Your task to perform on an android device: Search for alienware area 51 on newegg, select the first entry, and add it to the cart. Image 0: 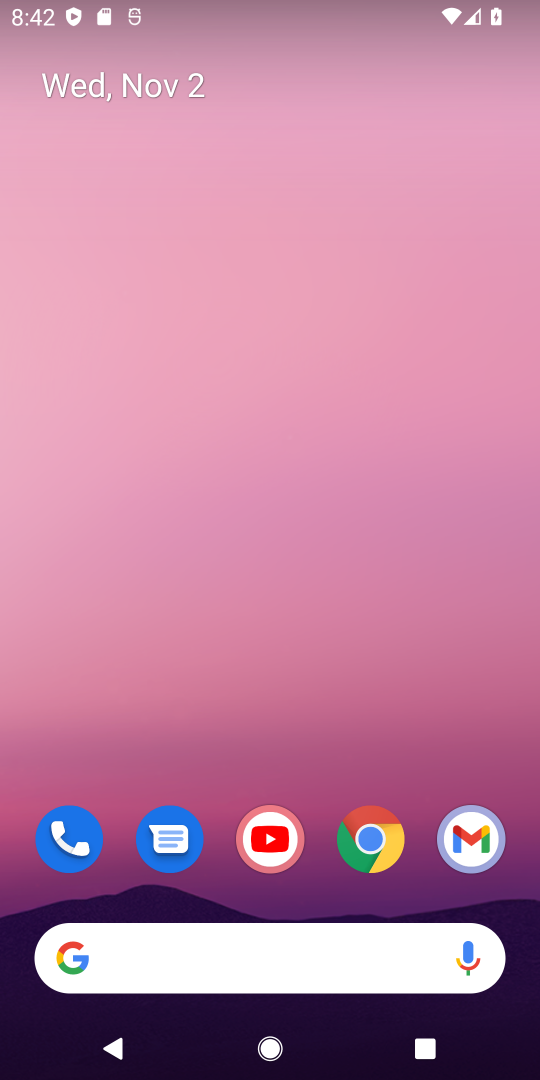
Step 0: click (370, 842)
Your task to perform on an android device: Search for alienware area 51 on newegg, select the first entry, and add it to the cart. Image 1: 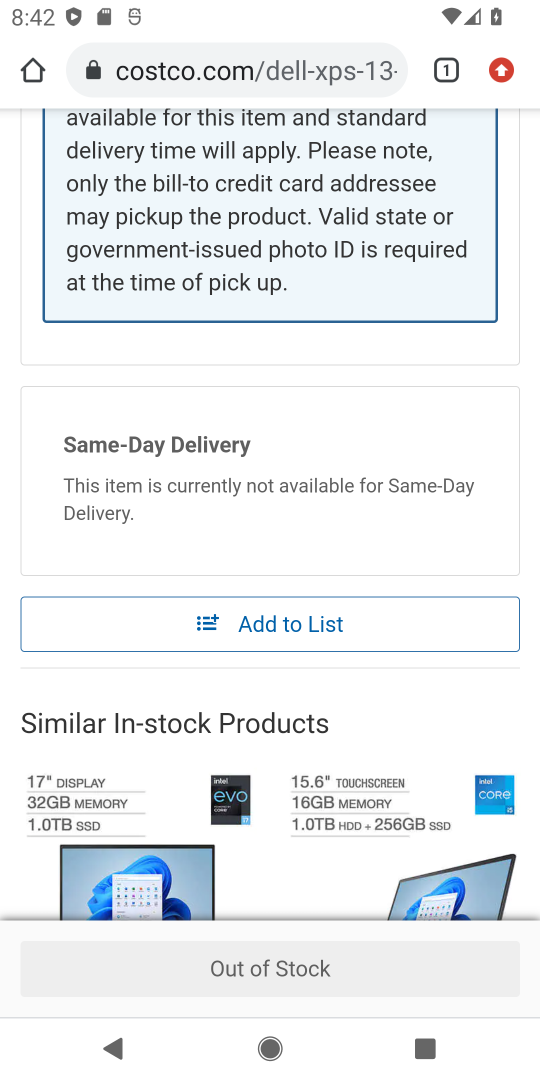
Step 1: click (217, 70)
Your task to perform on an android device: Search for alienware area 51 on newegg, select the first entry, and add it to the cart. Image 2: 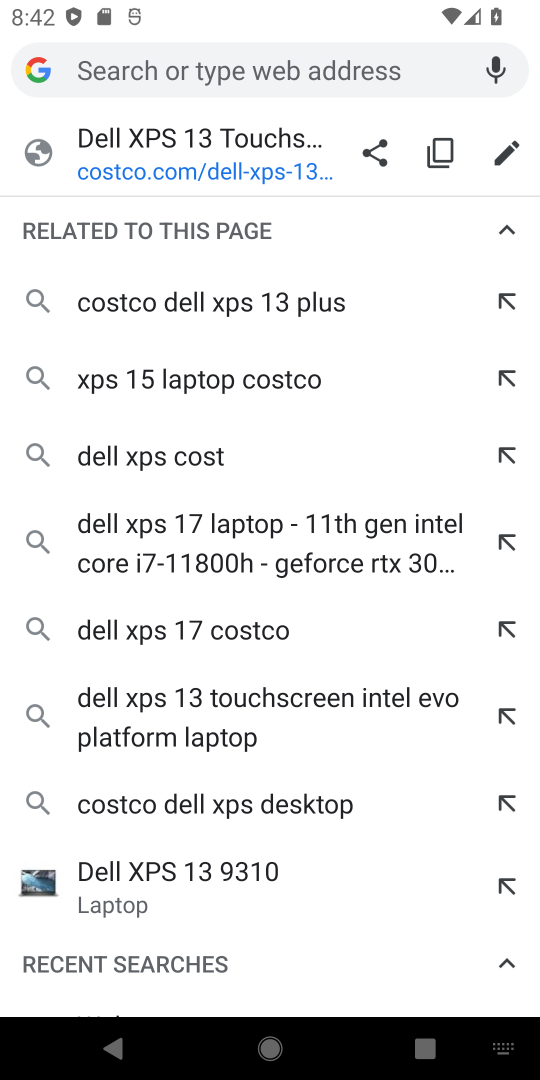
Step 2: type "newegg"
Your task to perform on an android device: Search for alienware area 51 on newegg, select the first entry, and add it to the cart. Image 3: 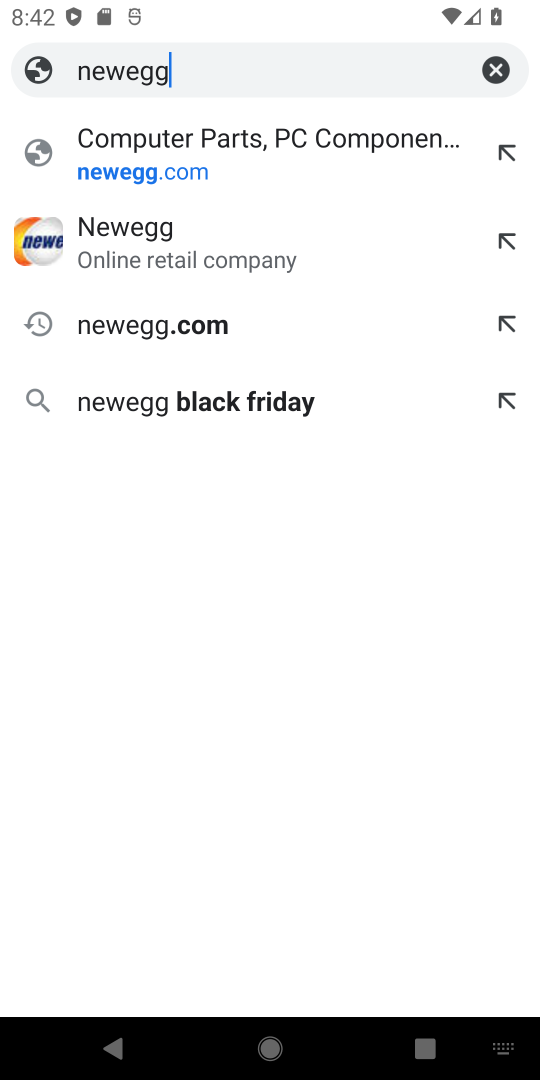
Step 3: click (139, 250)
Your task to perform on an android device: Search for alienware area 51 on newegg, select the first entry, and add it to the cart. Image 4: 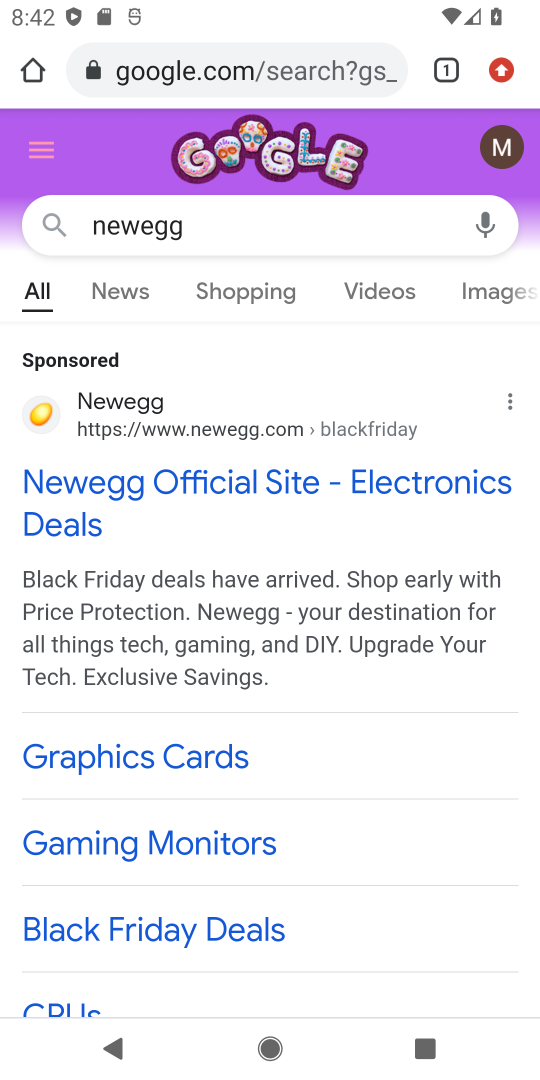
Step 4: drag from (247, 634) to (259, 271)
Your task to perform on an android device: Search for alienware area 51 on newegg, select the first entry, and add it to the cart. Image 5: 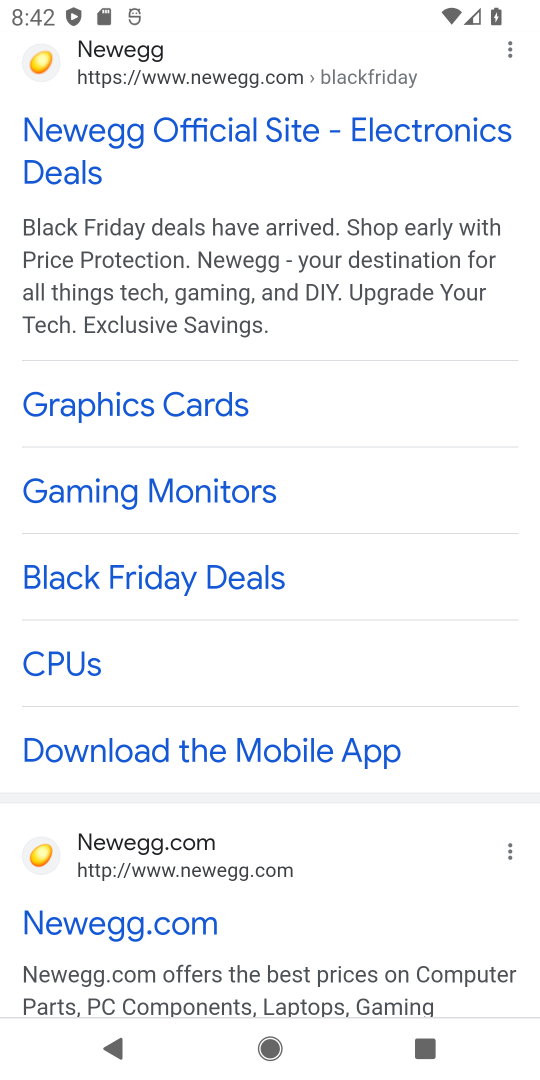
Step 5: drag from (251, 840) to (275, 528)
Your task to perform on an android device: Search for alienware area 51 on newegg, select the first entry, and add it to the cart. Image 6: 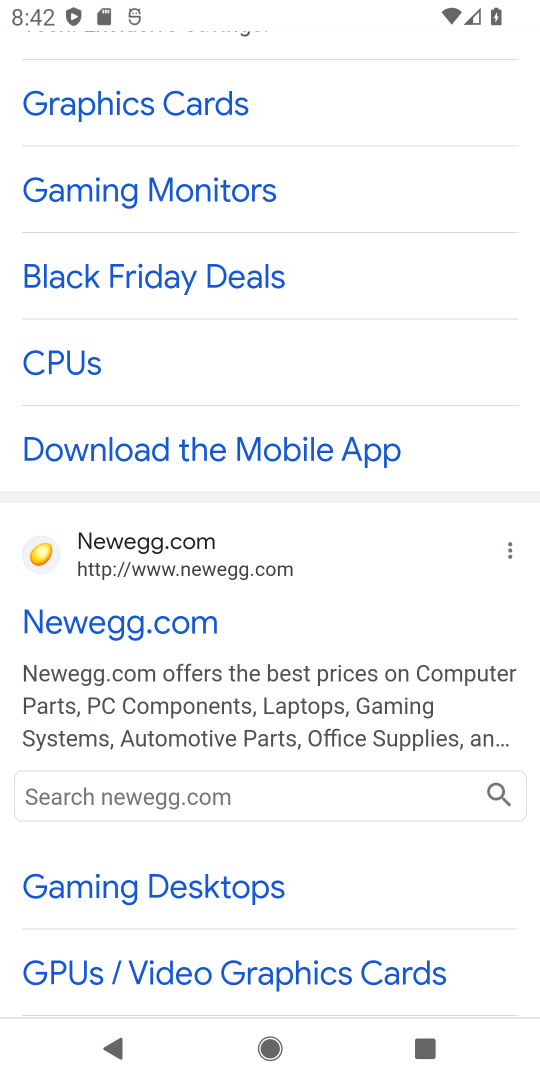
Step 6: click (227, 588)
Your task to perform on an android device: Search for alienware area 51 on newegg, select the first entry, and add it to the cart. Image 7: 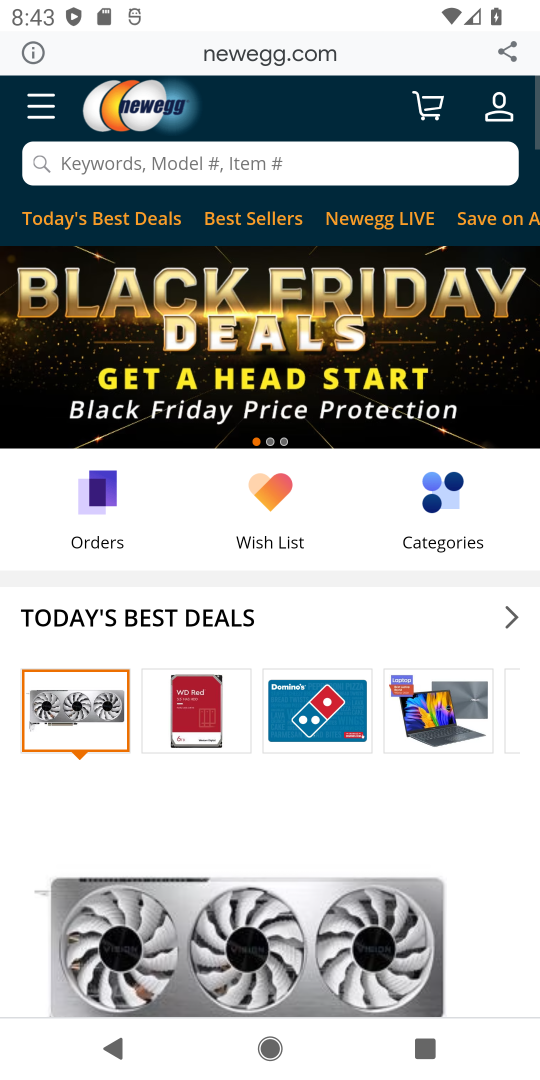
Step 7: click (274, 165)
Your task to perform on an android device: Search for alienware area 51 on newegg, select the first entry, and add it to the cart. Image 8: 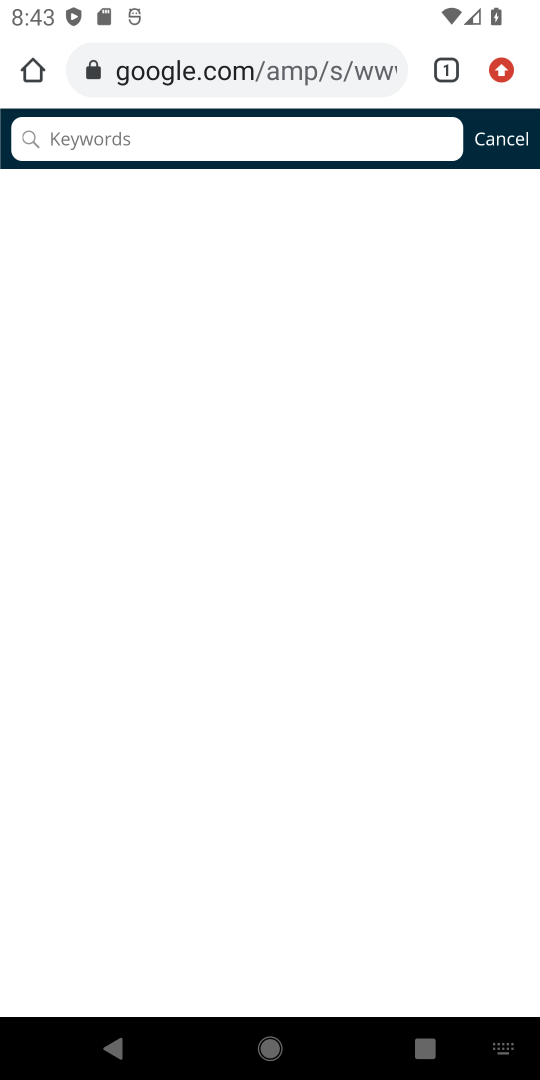
Step 8: type "alienware area 51"
Your task to perform on an android device: Search for alienware area 51 on newegg, select the first entry, and add it to the cart. Image 9: 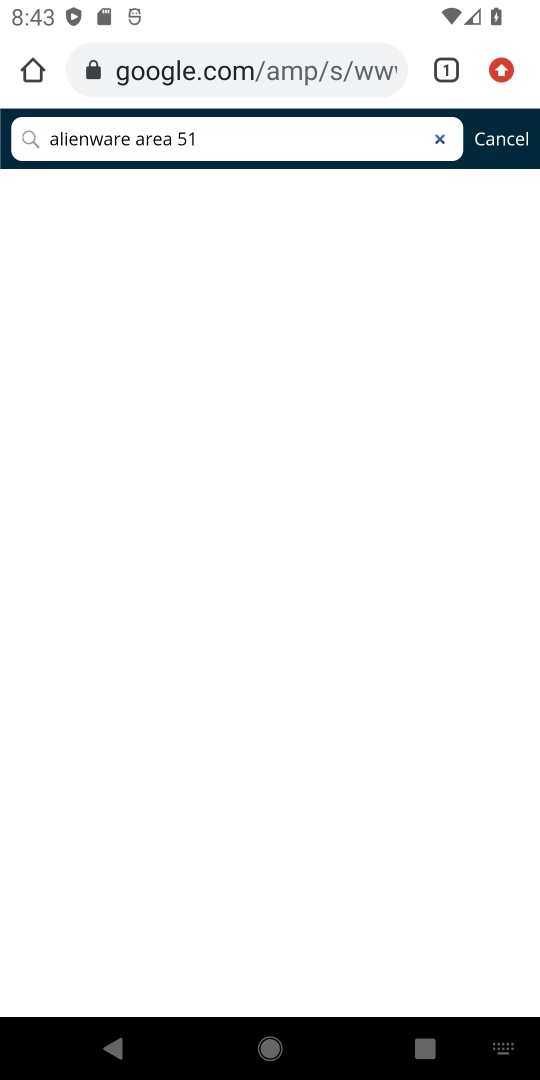
Step 9: task complete